Your task to perform on an android device: How do I get to the nearest T-Mobile Store? Image 0: 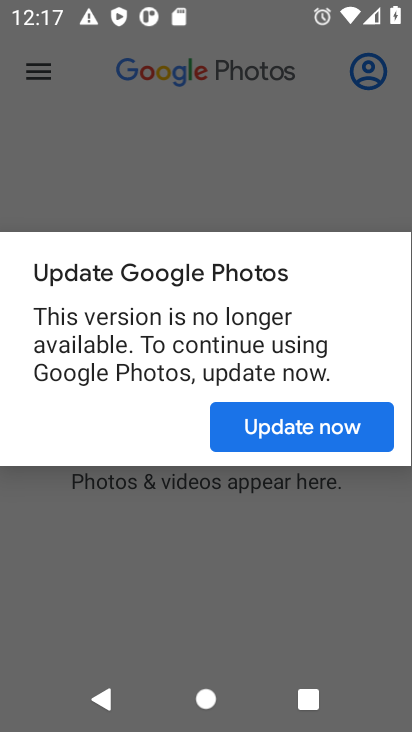
Step 0: press home button
Your task to perform on an android device: How do I get to the nearest T-Mobile Store? Image 1: 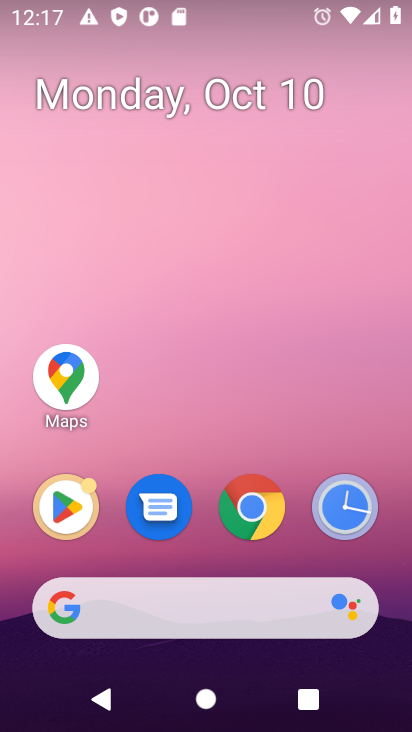
Step 1: click (267, 611)
Your task to perform on an android device: How do I get to the nearest T-Mobile Store? Image 2: 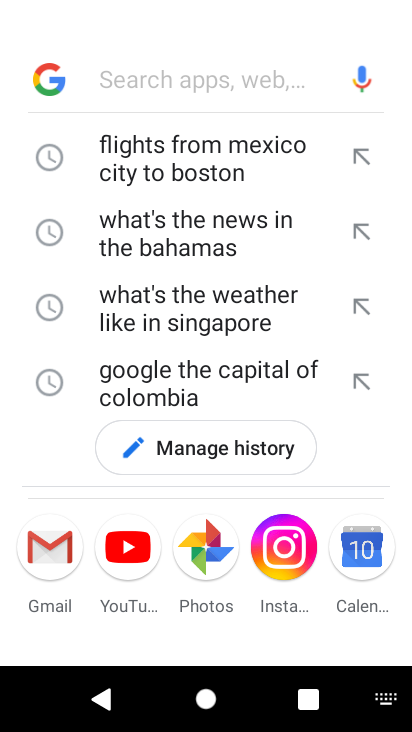
Step 2: type "How do I get to the nearest T-Mobile Store"
Your task to perform on an android device: How do I get to the nearest T-Mobile Store? Image 3: 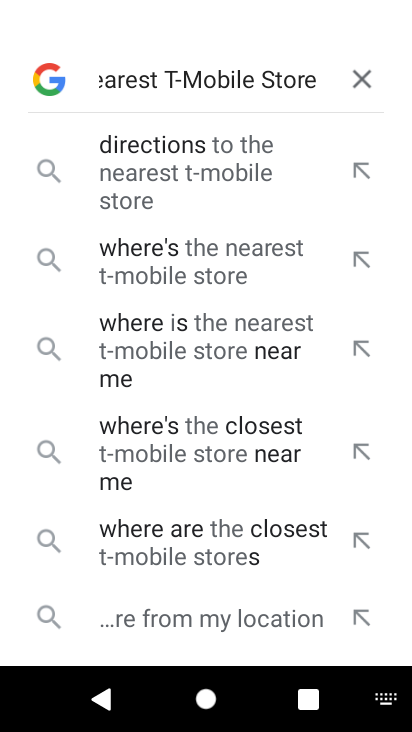
Step 3: press enter
Your task to perform on an android device: How do I get to the nearest T-Mobile Store? Image 4: 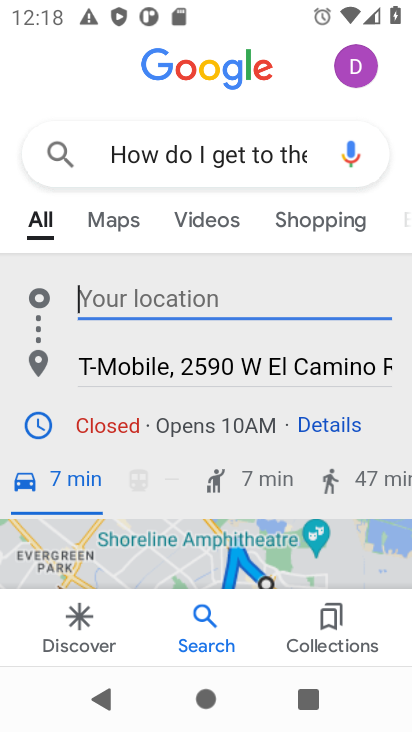
Step 4: task complete